Your task to perform on an android device: empty trash in the gmail app Image 0: 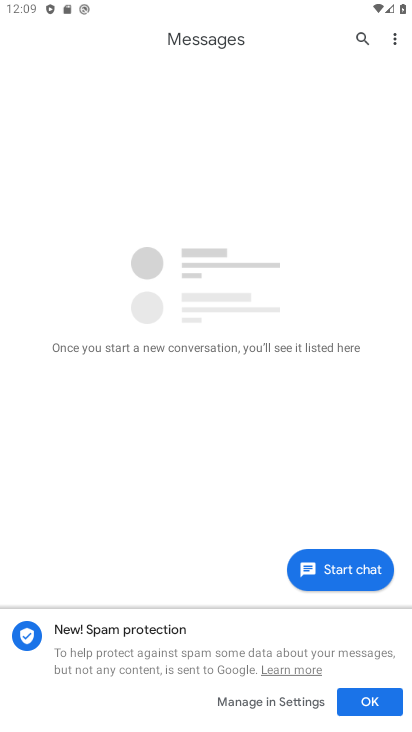
Step 0: press home button
Your task to perform on an android device: empty trash in the gmail app Image 1: 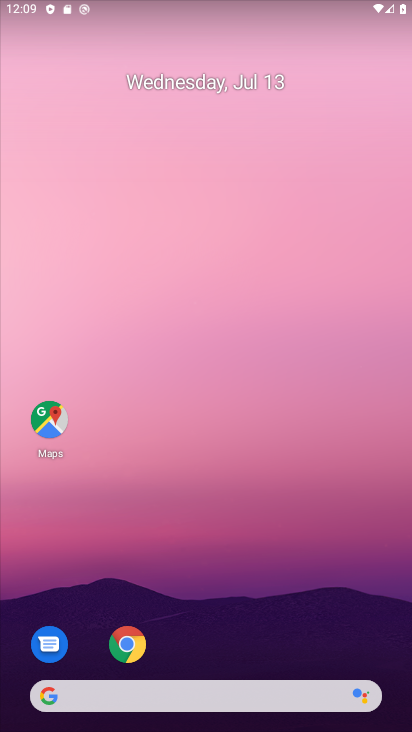
Step 1: drag from (361, 610) to (335, 41)
Your task to perform on an android device: empty trash in the gmail app Image 2: 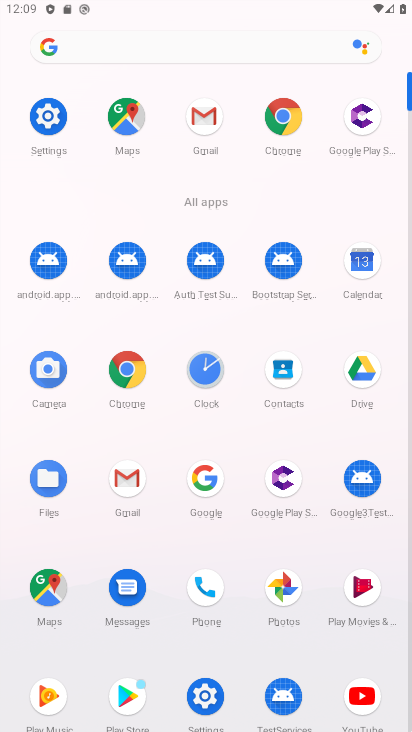
Step 2: click (211, 116)
Your task to perform on an android device: empty trash in the gmail app Image 3: 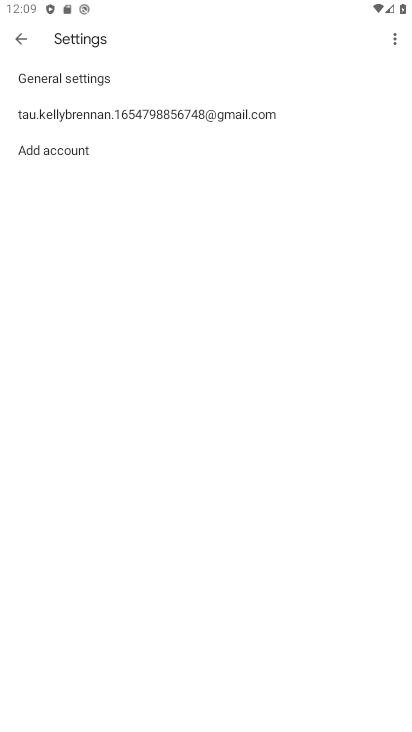
Step 3: click (187, 112)
Your task to perform on an android device: empty trash in the gmail app Image 4: 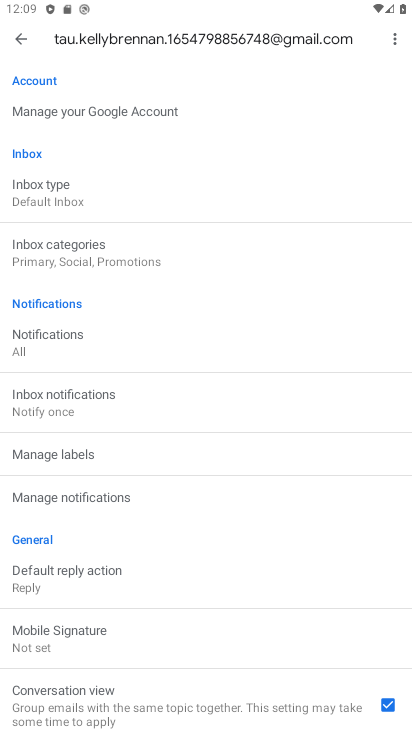
Step 4: click (29, 36)
Your task to perform on an android device: empty trash in the gmail app Image 5: 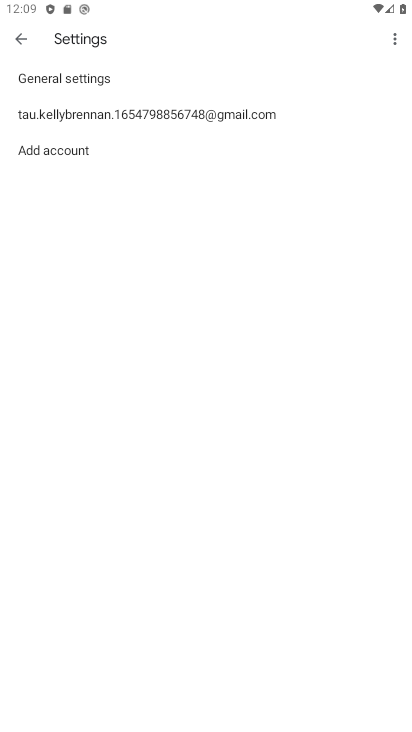
Step 5: click (29, 36)
Your task to perform on an android device: empty trash in the gmail app Image 6: 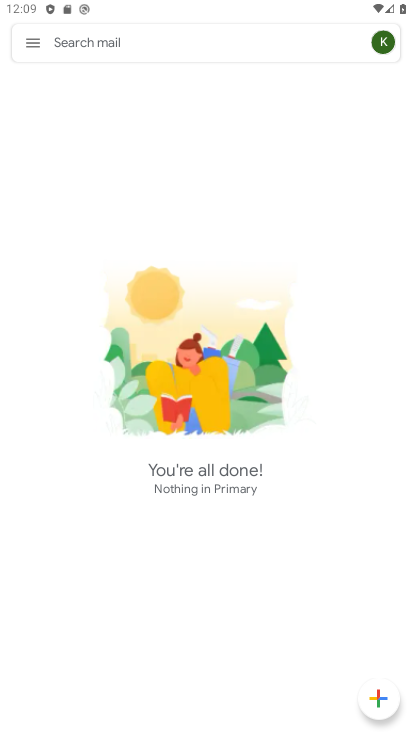
Step 6: click (29, 37)
Your task to perform on an android device: empty trash in the gmail app Image 7: 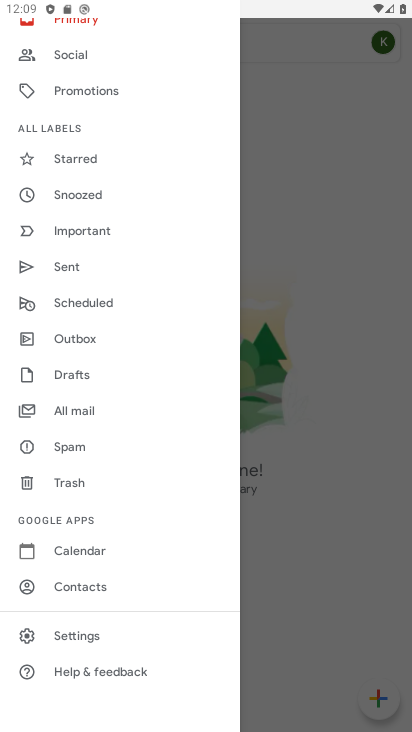
Step 7: click (77, 486)
Your task to perform on an android device: empty trash in the gmail app Image 8: 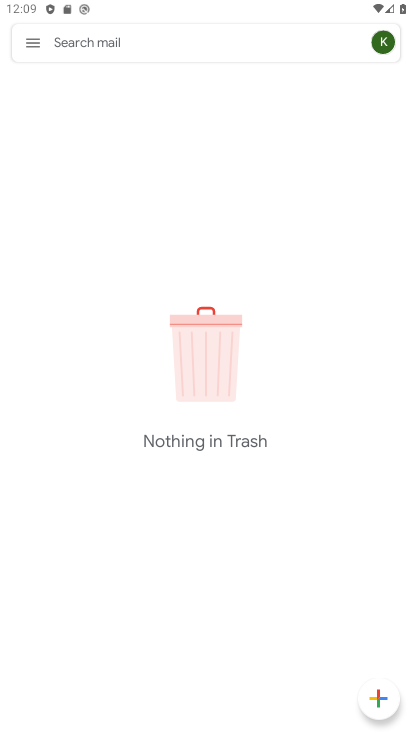
Step 8: task complete